Your task to perform on an android device: turn on bluetooth scan Image 0: 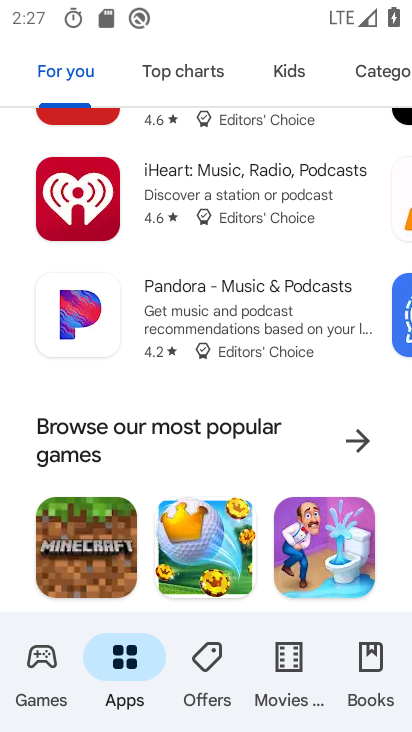
Step 0: press home button
Your task to perform on an android device: turn on bluetooth scan Image 1: 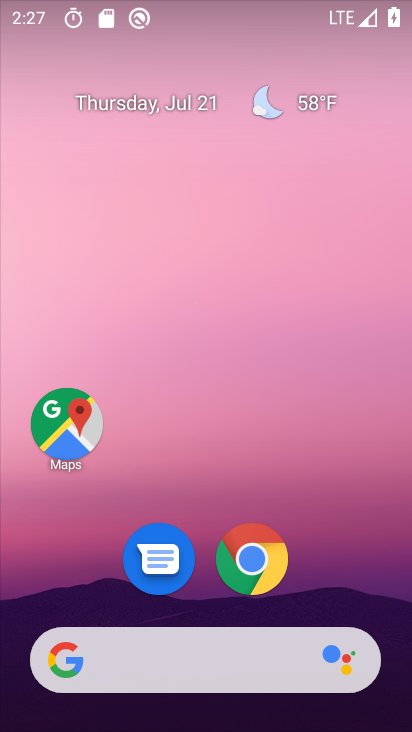
Step 1: drag from (360, 546) to (390, 58)
Your task to perform on an android device: turn on bluetooth scan Image 2: 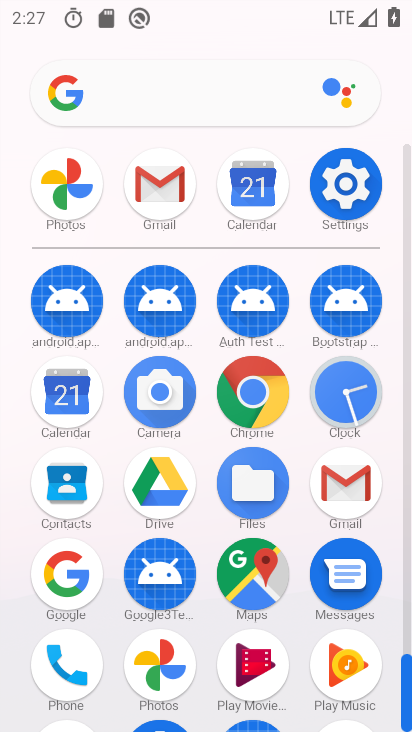
Step 2: click (340, 194)
Your task to perform on an android device: turn on bluetooth scan Image 3: 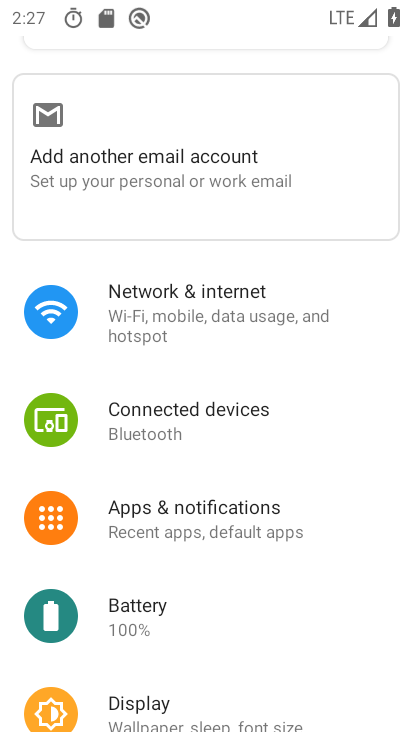
Step 3: drag from (348, 481) to (369, 313)
Your task to perform on an android device: turn on bluetooth scan Image 4: 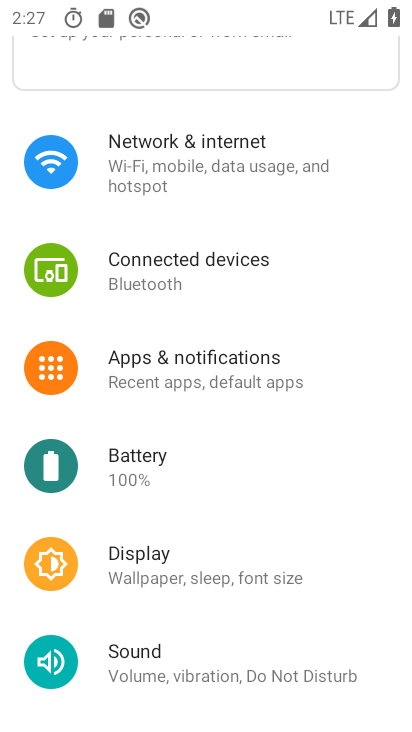
Step 4: drag from (355, 472) to (364, 310)
Your task to perform on an android device: turn on bluetooth scan Image 5: 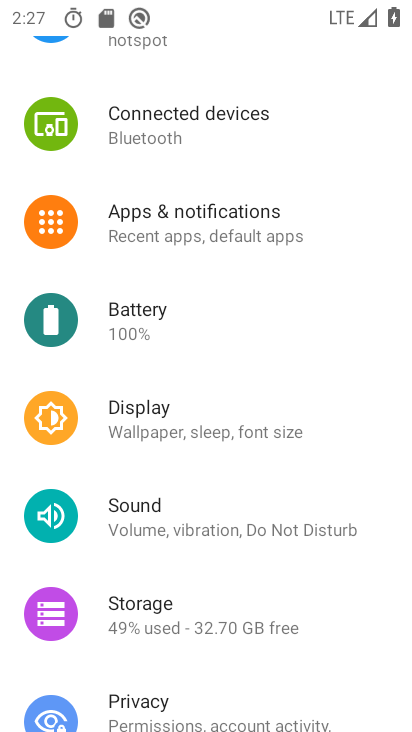
Step 5: drag from (335, 461) to (343, 352)
Your task to perform on an android device: turn on bluetooth scan Image 6: 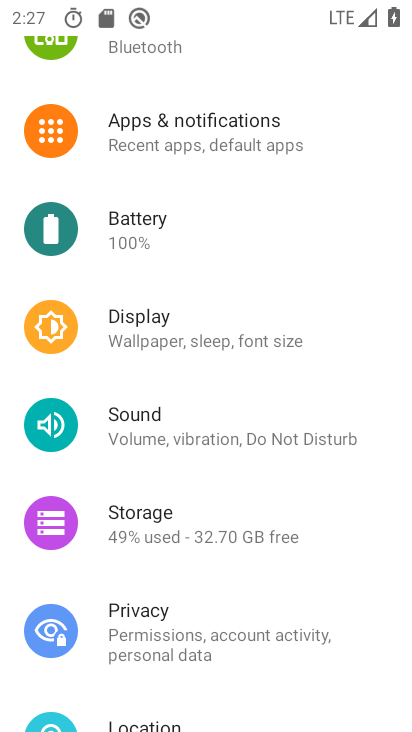
Step 6: drag from (321, 506) to (333, 411)
Your task to perform on an android device: turn on bluetooth scan Image 7: 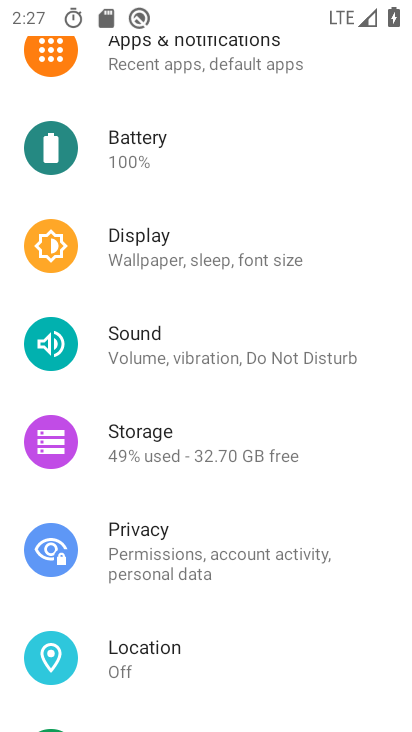
Step 7: drag from (344, 506) to (347, 387)
Your task to perform on an android device: turn on bluetooth scan Image 8: 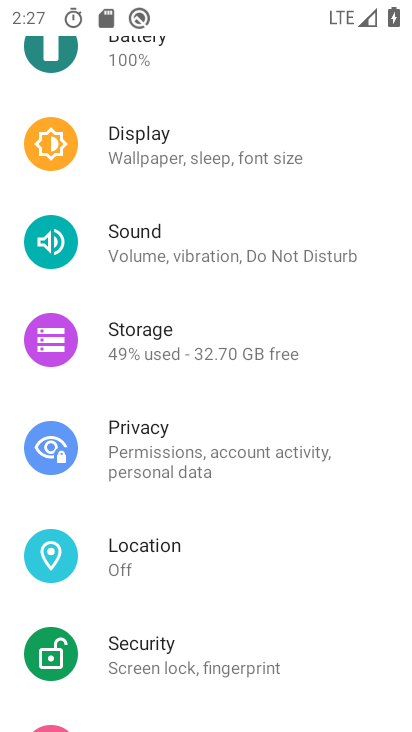
Step 8: drag from (362, 530) to (371, 374)
Your task to perform on an android device: turn on bluetooth scan Image 9: 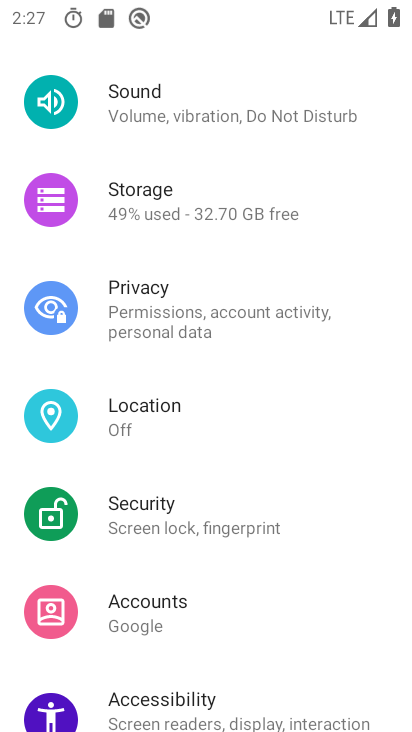
Step 9: drag from (357, 481) to (363, 356)
Your task to perform on an android device: turn on bluetooth scan Image 10: 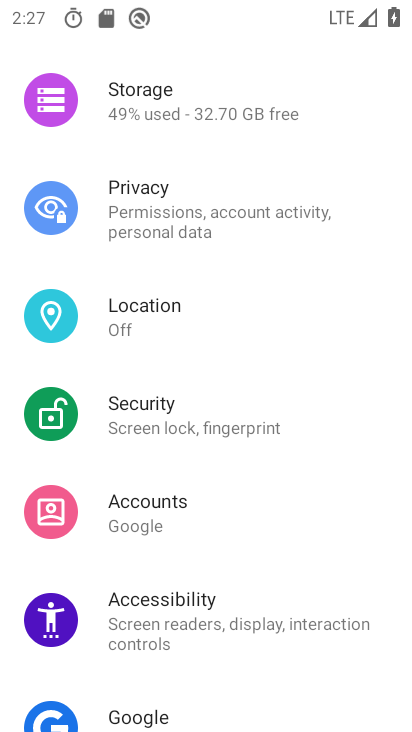
Step 10: drag from (349, 449) to (351, 344)
Your task to perform on an android device: turn on bluetooth scan Image 11: 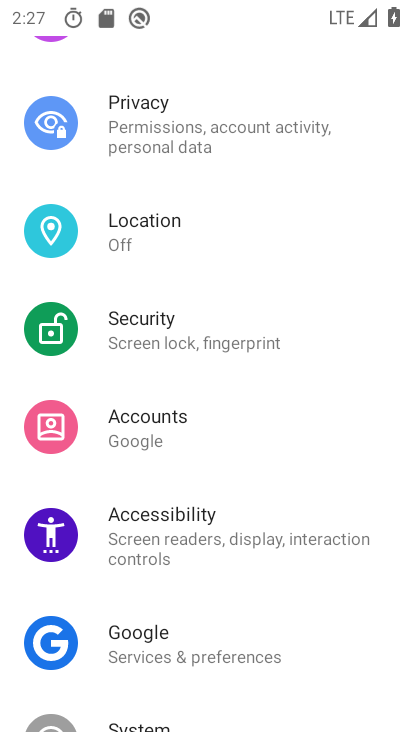
Step 11: click (271, 253)
Your task to perform on an android device: turn on bluetooth scan Image 12: 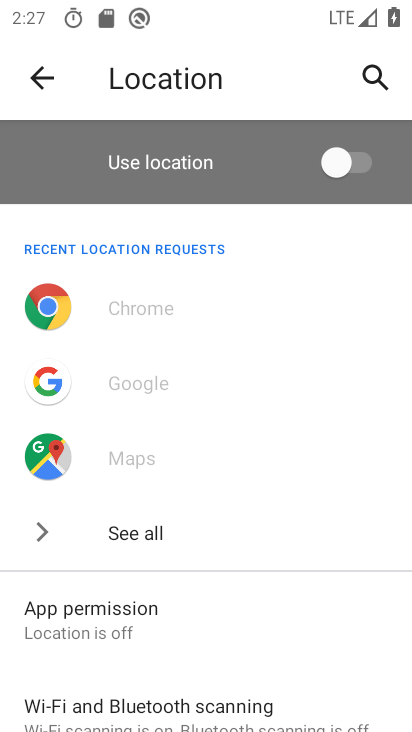
Step 12: drag from (279, 518) to (284, 284)
Your task to perform on an android device: turn on bluetooth scan Image 13: 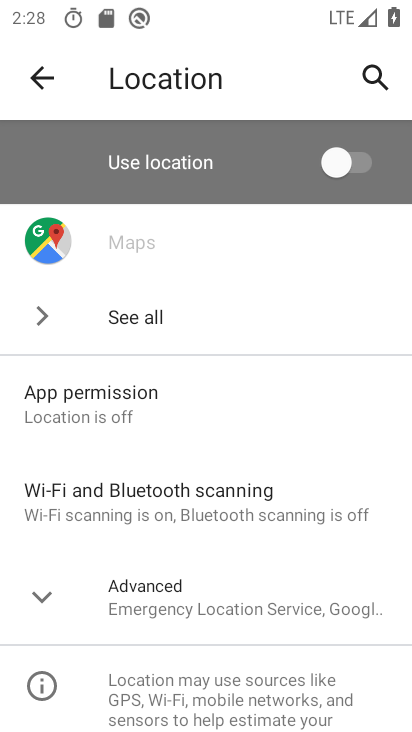
Step 13: click (270, 496)
Your task to perform on an android device: turn on bluetooth scan Image 14: 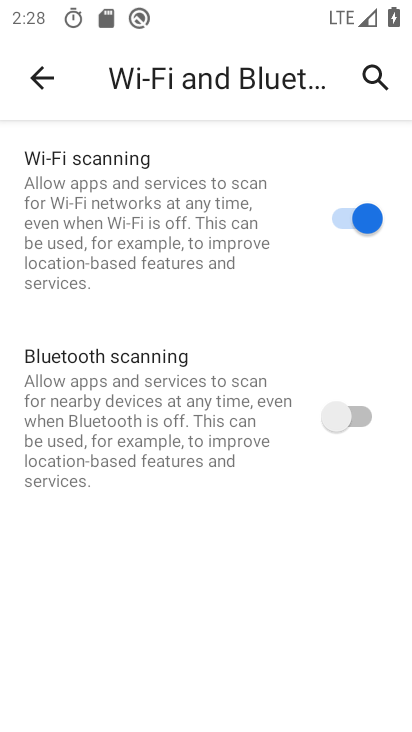
Step 14: click (347, 420)
Your task to perform on an android device: turn on bluetooth scan Image 15: 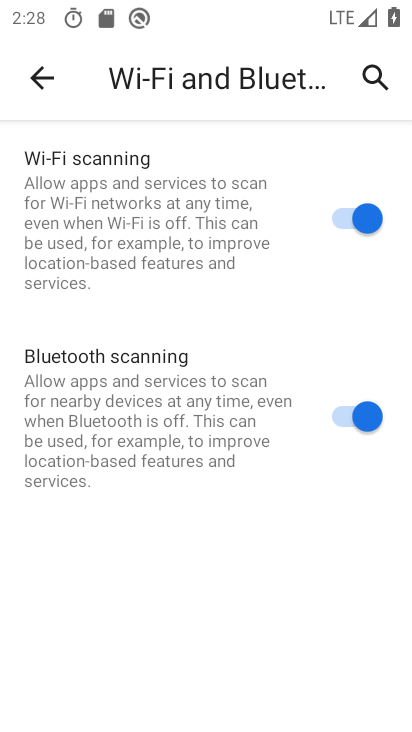
Step 15: task complete